Your task to perform on an android device: Open accessibility settings Image 0: 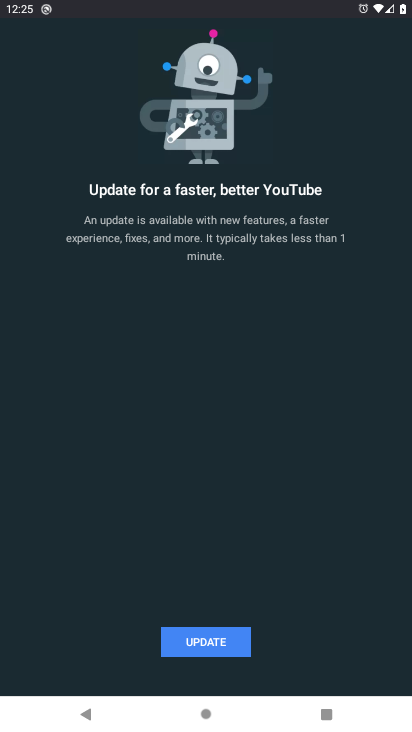
Step 0: press home button
Your task to perform on an android device: Open accessibility settings Image 1: 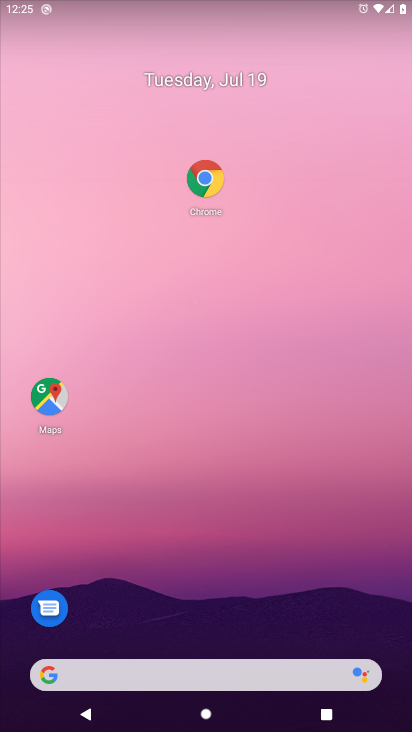
Step 1: drag from (103, 570) to (245, 167)
Your task to perform on an android device: Open accessibility settings Image 2: 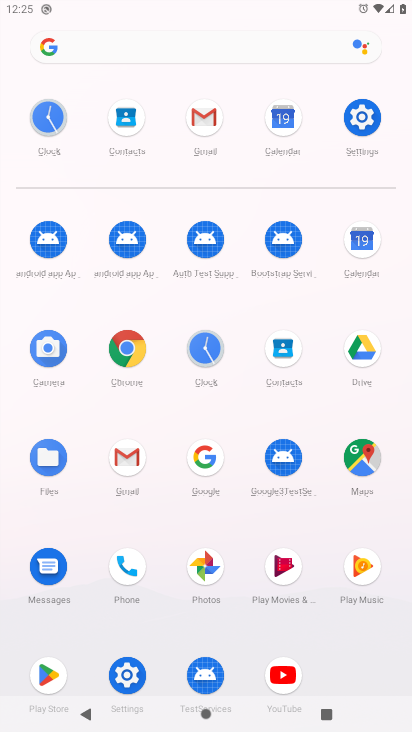
Step 2: click (130, 674)
Your task to perform on an android device: Open accessibility settings Image 3: 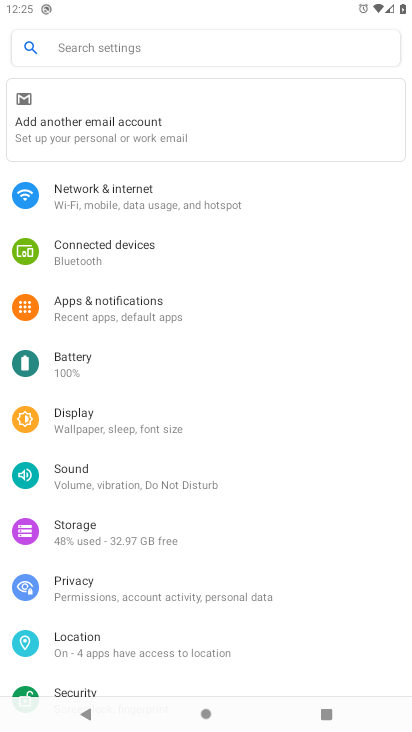
Step 3: drag from (285, 562) to (307, 307)
Your task to perform on an android device: Open accessibility settings Image 4: 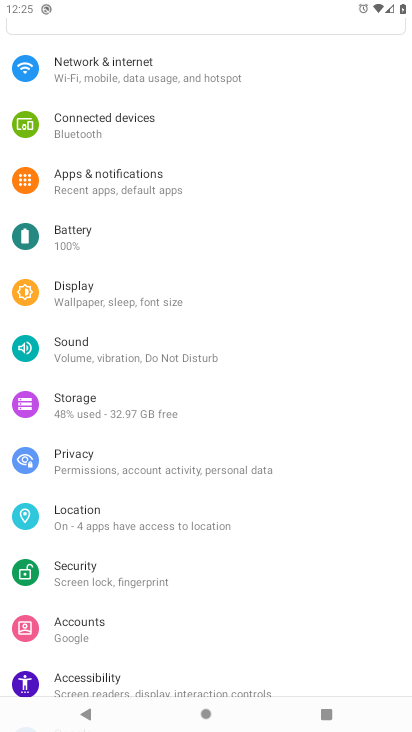
Step 4: click (88, 684)
Your task to perform on an android device: Open accessibility settings Image 5: 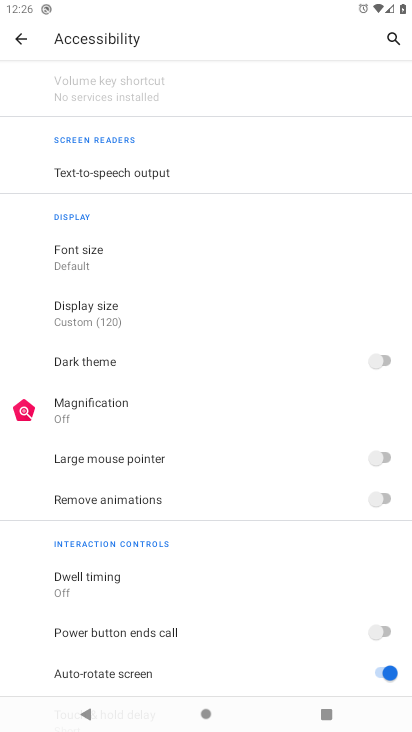
Step 5: task complete